Your task to perform on an android device: turn off sleep mode Image 0: 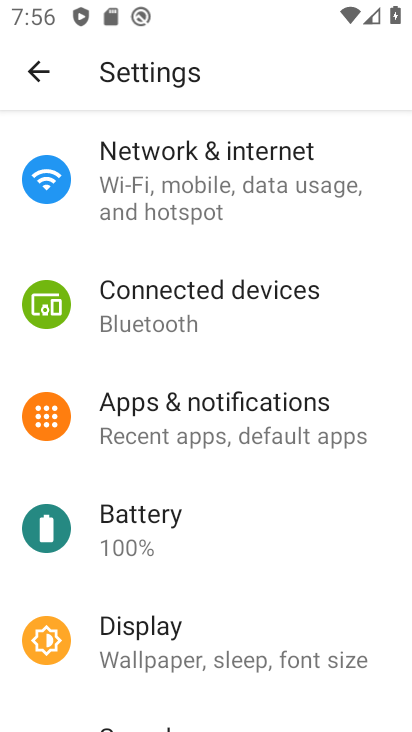
Step 0: drag from (239, 337) to (246, 640)
Your task to perform on an android device: turn off sleep mode Image 1: 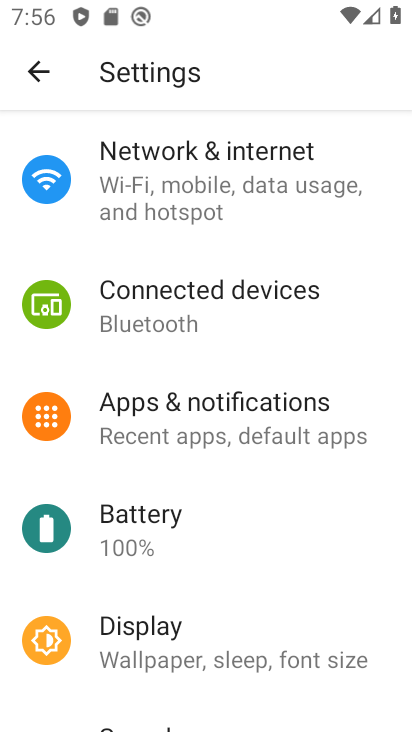
Step 1: drag from (245, 632) to (250, 485)
Your task to perform on an android device: turn off sleep mode Image 2: 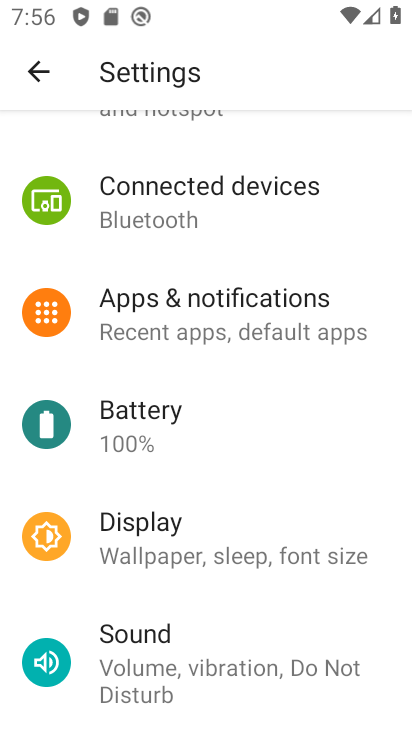
Step 2: click (231, 526)
Your task to perform on an android device: turn off sleep mode Image 3: 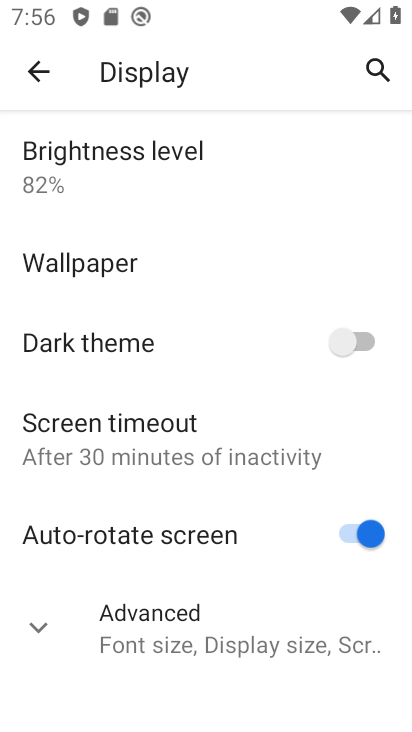
Step 3: click (250, 437)
Your task to perform on an android device: turn off sleep mode Image 4: 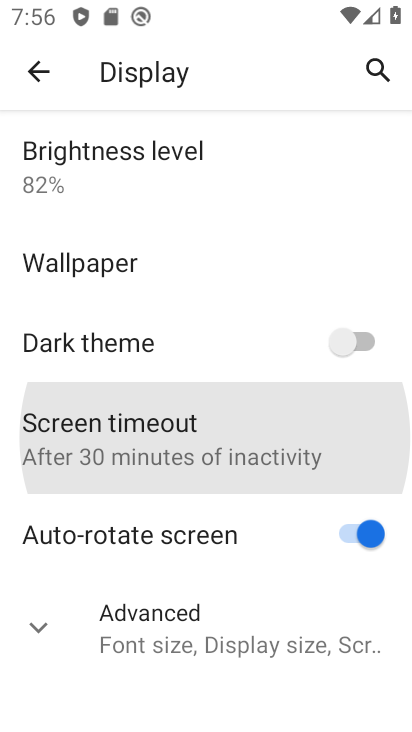
Step 4: click (250, 437)
Your task to perform on an android device: turn off sleep mode Image 5: 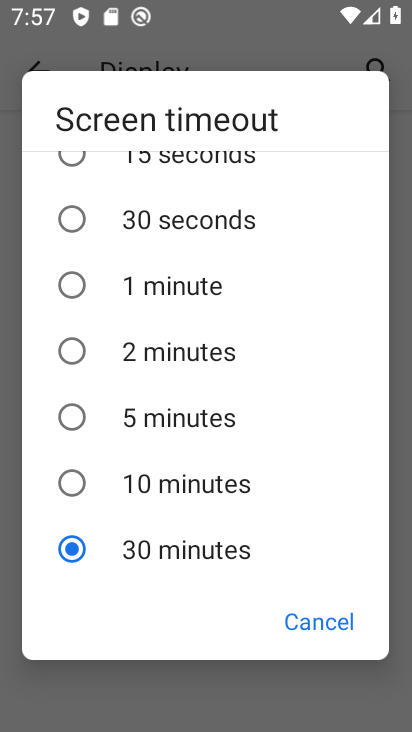
Step 5: task complete